Your task to perform on an android device: turn notification dots off Image 0: 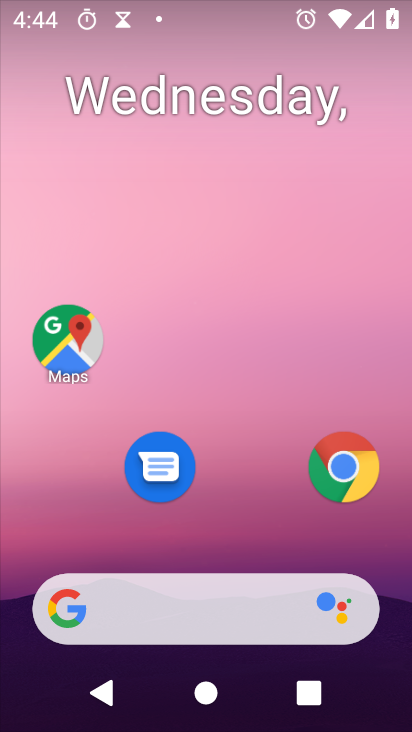
Step 0: drag from (253, 548) to (206, 108)
Your task to perform on an android device: turn notification dots off Image 1: 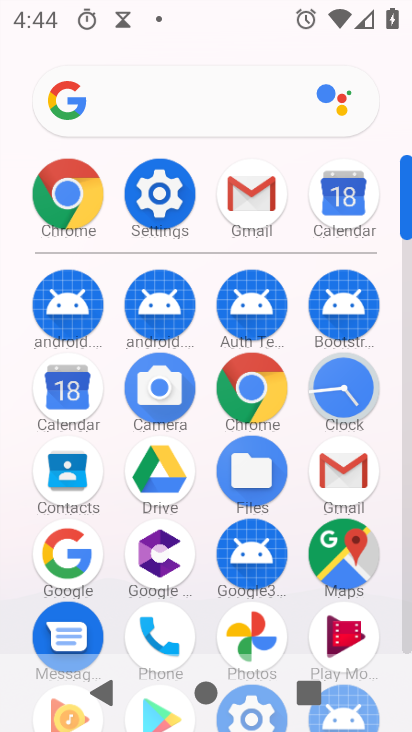
Step 1: click (175, 188)
Your task to perform on an android device: turn notification dots off Image 2: 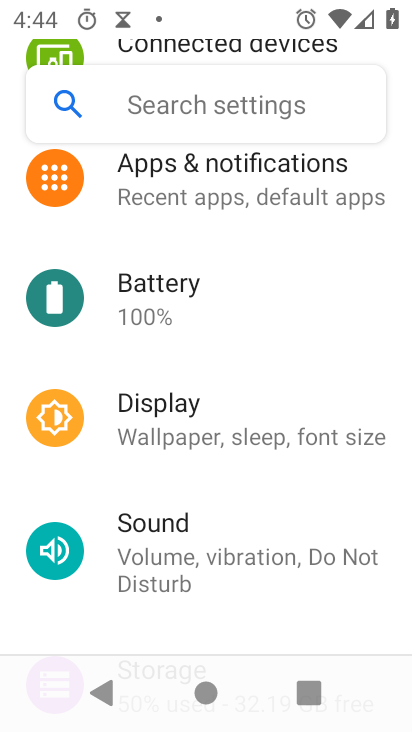
Step 2: click (259, 186)
Your task to perform on an android device: turn notification dots off Image 3: 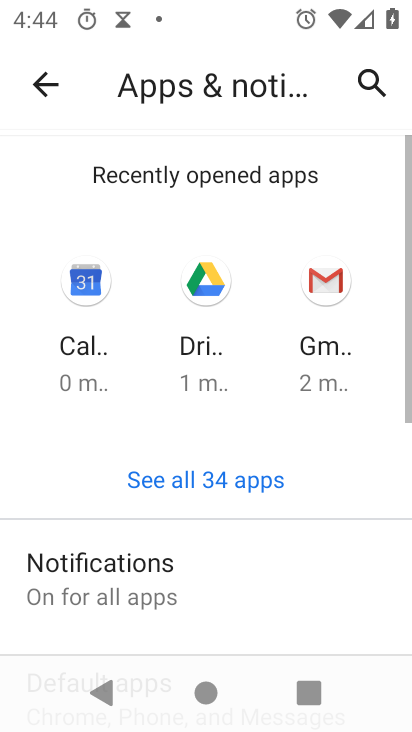
Step 3: click (249, 588)
Your task to perform on an android device: turn notification dots off Image 4: 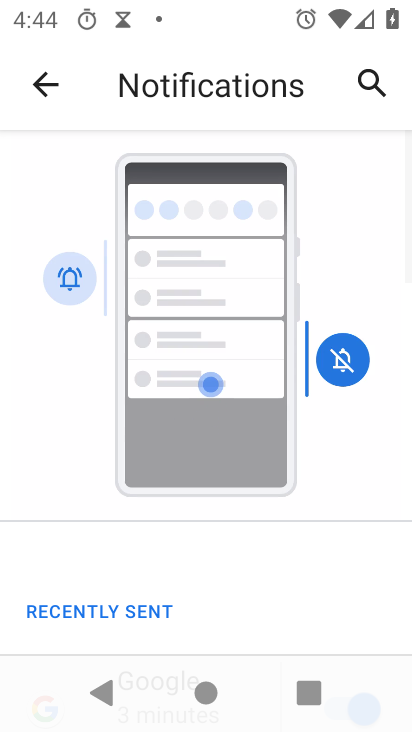
Step 4: drag from (249, 588) to (166, 105)
Your task to perform on an android device: turn notification dots off Image 5: 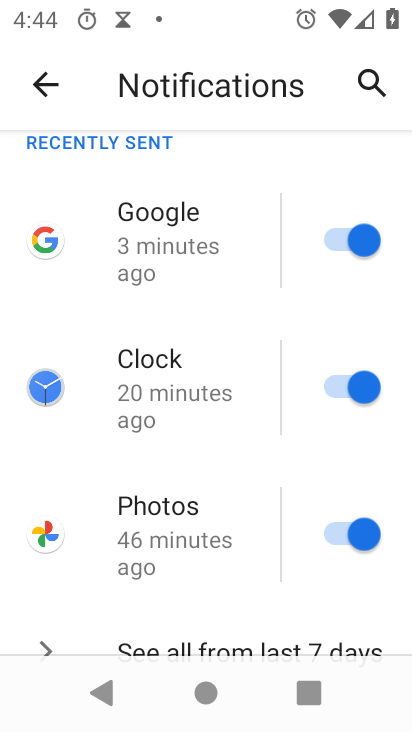
Step 5: drag from (302, 630) to (237, 21)
Your task to perform on an android device: turn notification dots off Image 6: 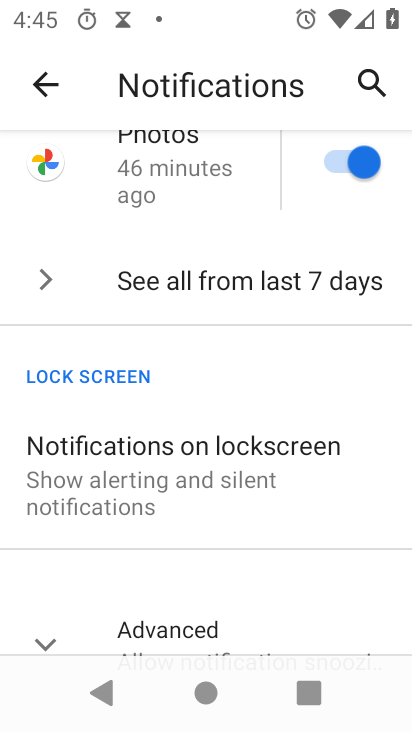
Step 6: drag from (299, 533) to (238, 214)
Your task to perform on an android device: turn notification dots off Image 7: 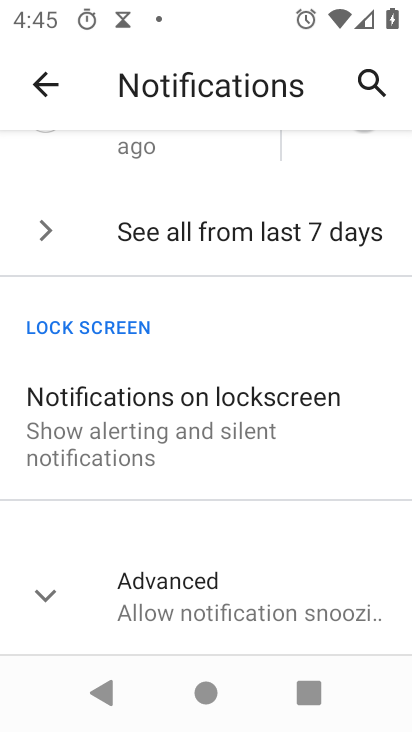
Step 7: click (240, 564)
Your task to perform on an android device: turn notification dots off Image 8: 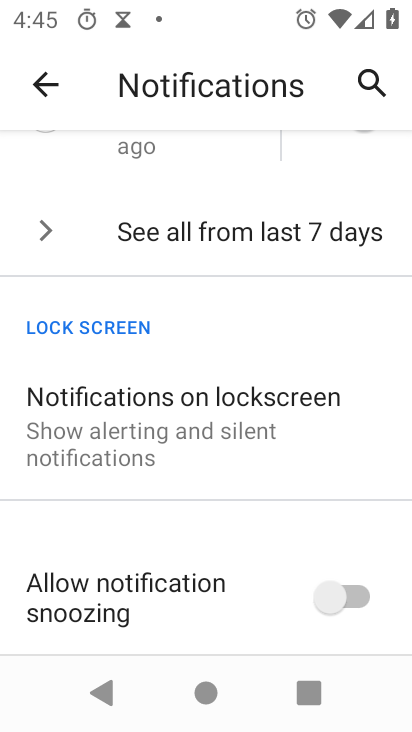
Step 8: task complete